Your task to perform on an android device: Go to eBay Image 0: 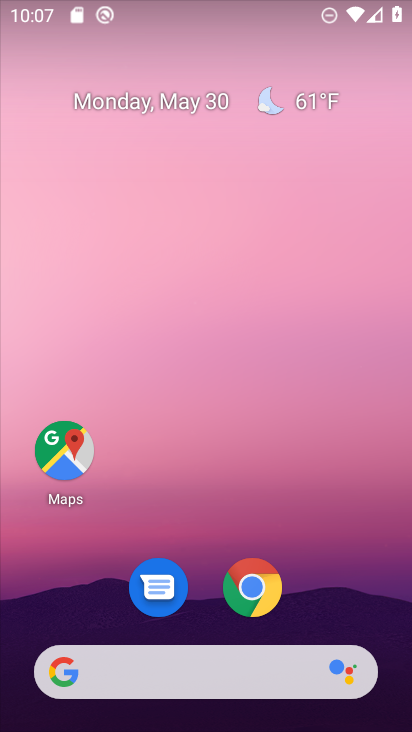
Step 0: click (230, 596)
Your task to perform on an android device: Go to eBay Image 1: 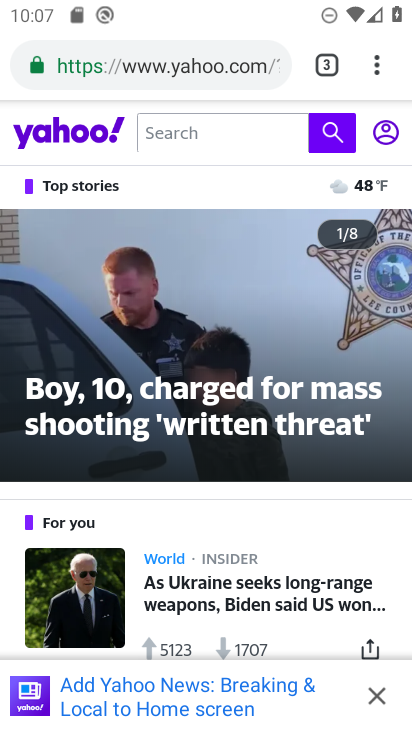
Step 1: click (329, 64)
Your task to perform on an android device: Go to eBay Image 2: 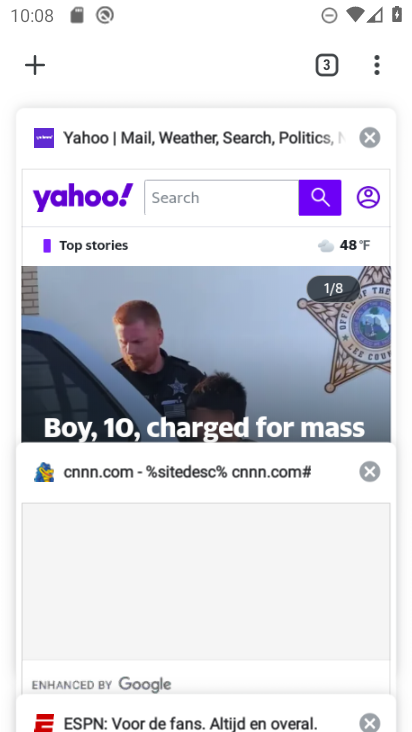
Step 2: click (32, 68)
Your task to perform on an android device: Go to eBay Image 3: 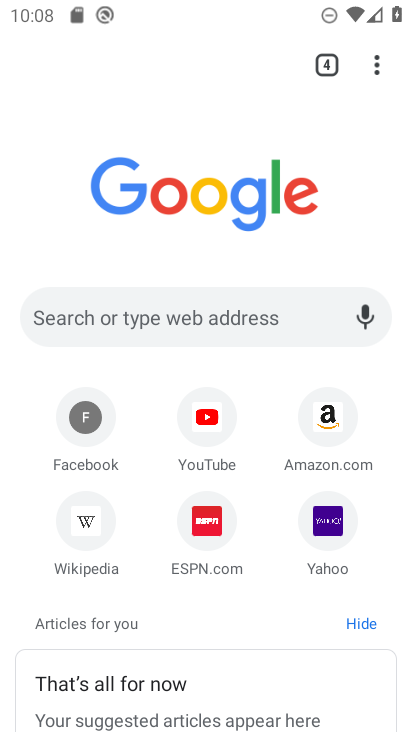
Step 3: click (242, 325)
Your task to perform on an android device: Go to eBay Image 4: 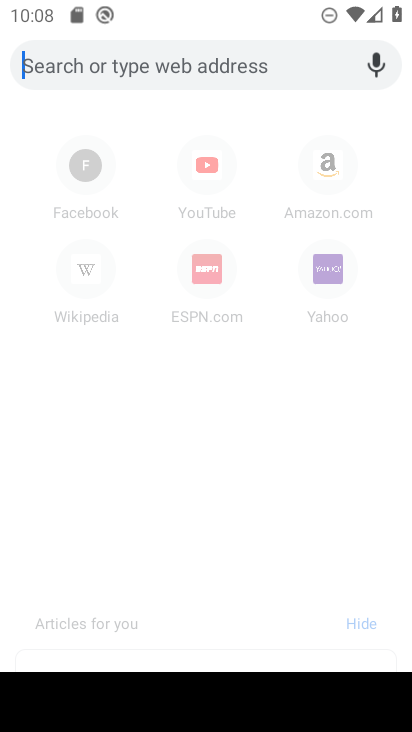
Step 4: type "ebay"
Your task to perform on an android device: Go to eBay Image 5: 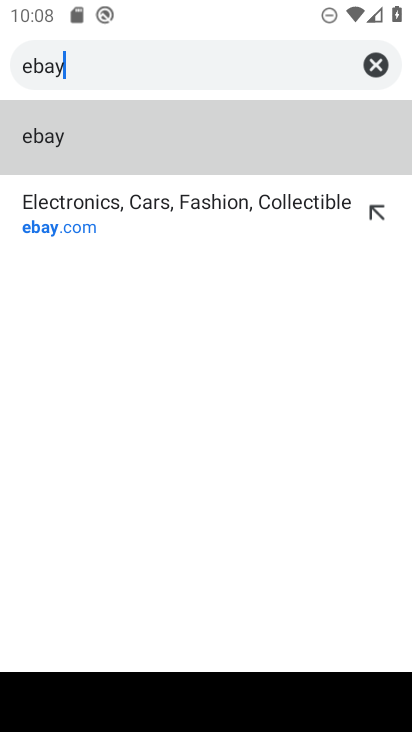
Step 5: type ""
Your task to perform on an android device: Go to eBay Image 6: 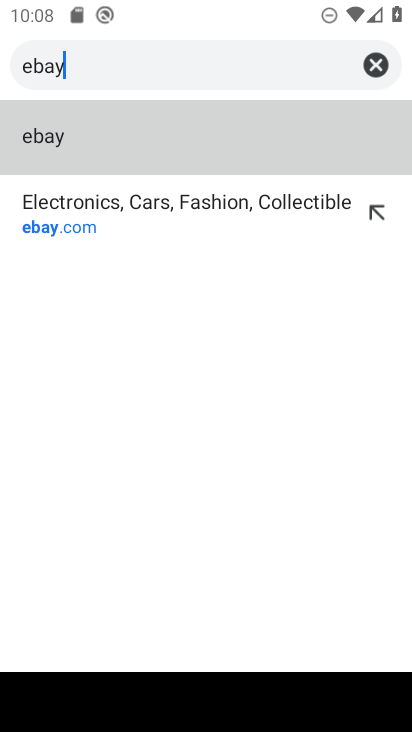
Step 6: click (190, 249)
Your task to perform on an android device: Go to eBay Image 7: 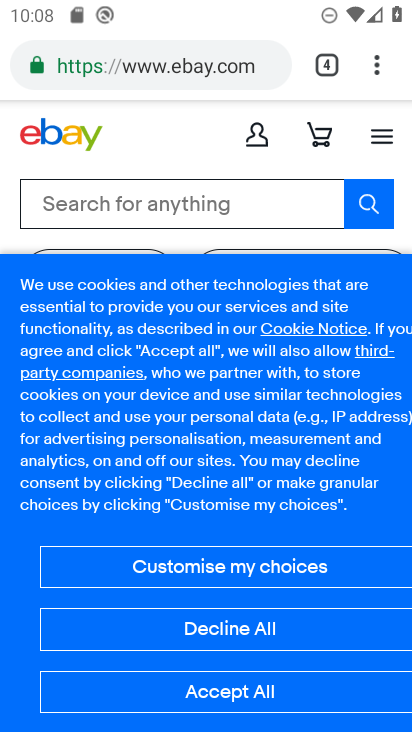
Step 7: task complete